Your task to perform on an android device: turn on translation in the chrome app Image 0: 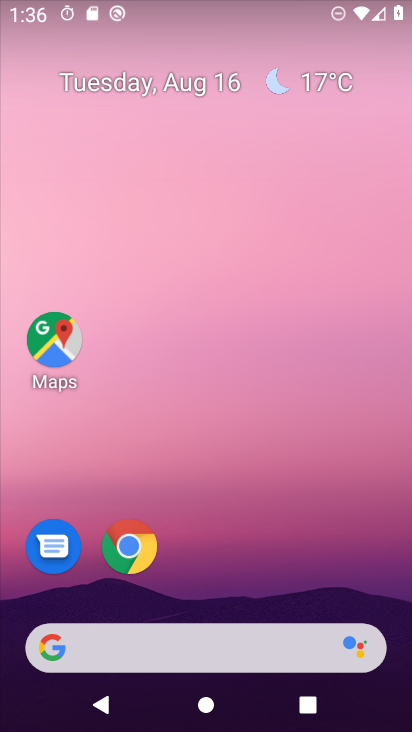
Step 0: click (133, 545)
Your task to perform on an android device: turn on translation in the chrome app Image 1: 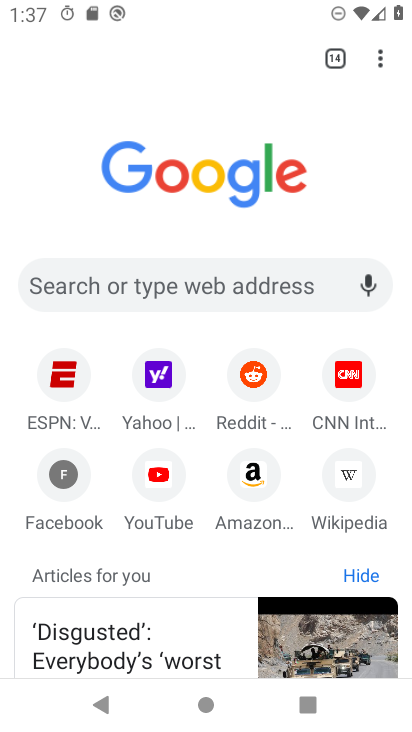
Step 1: click (382, 60)
Your task to perform on an android device: turn on translation in the chrome app Image 2: 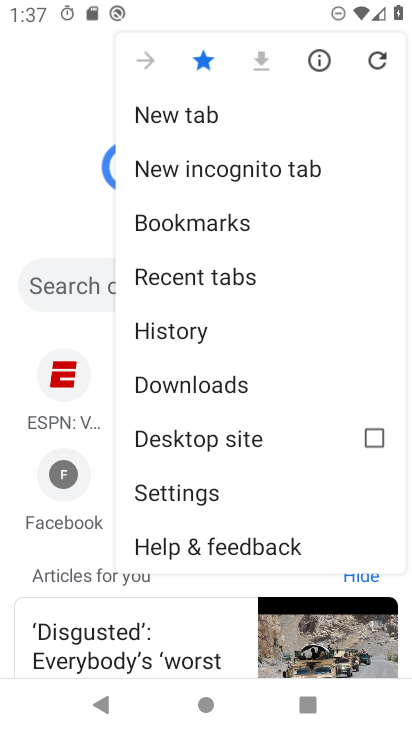
Step 2: click (196, 491)
Your task to perform on an android device: turn on translation in the chrome app Image 3: 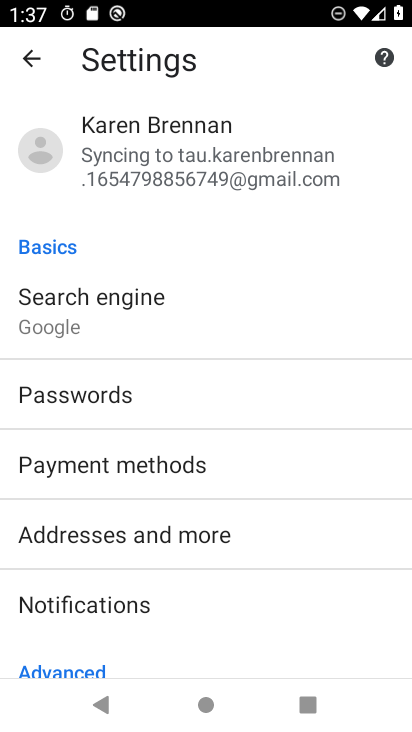
Step 3: drag from (142, 608) to (110, 281)
Your task to perform on an android device: turn on translation in the chrome app Image 4: 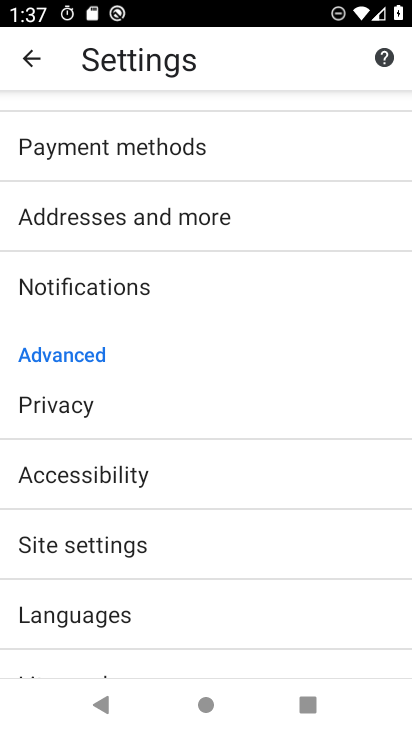
Step 4: click (112, 616)
Your task to perform on an android device: turn on translation in the chrome app Image 5: 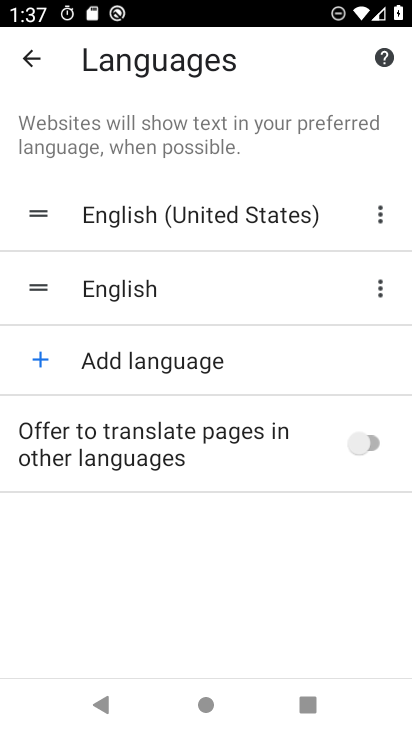
Step 5: click (371, 436)
Your task to perform on an android device: turn on translation in the chrome app Image 6: 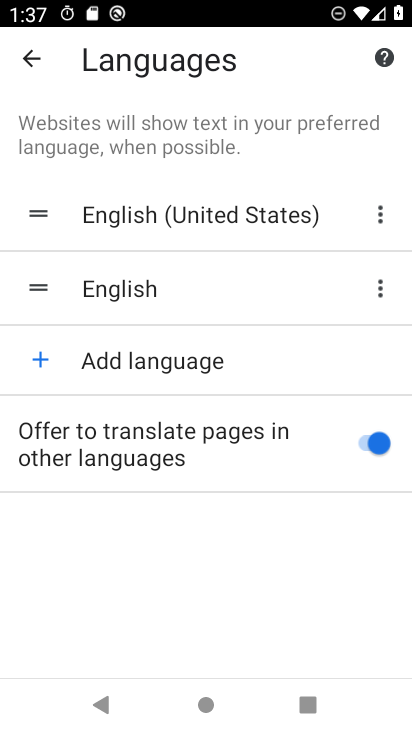
Step 6: task complete